Your task to perform on an android device: change your default location settings in chrome Image 0: 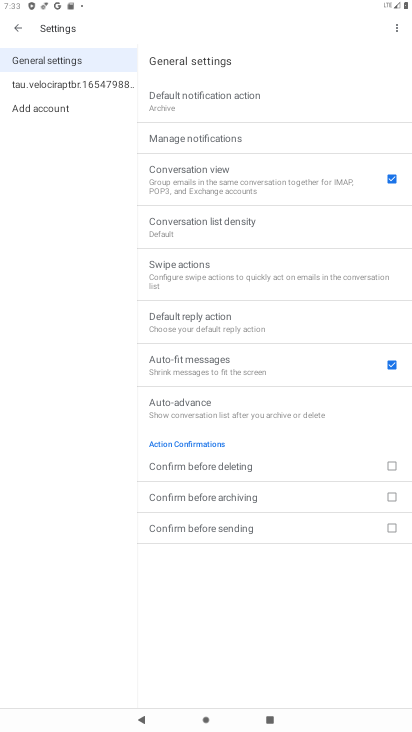
Step 0: press home button
Your task to perform on an android device: change your default location settings in chrome Image 1: 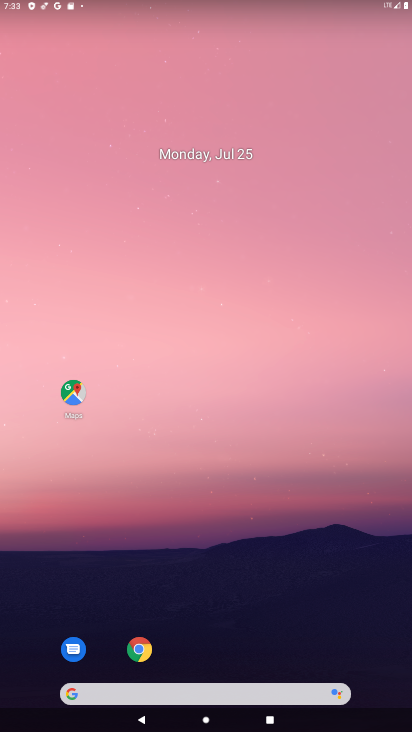
Step 1: drag from (217, 671) to (164, 236)
Your task to perform on an android device: change your default location settings in chrome Image 2: 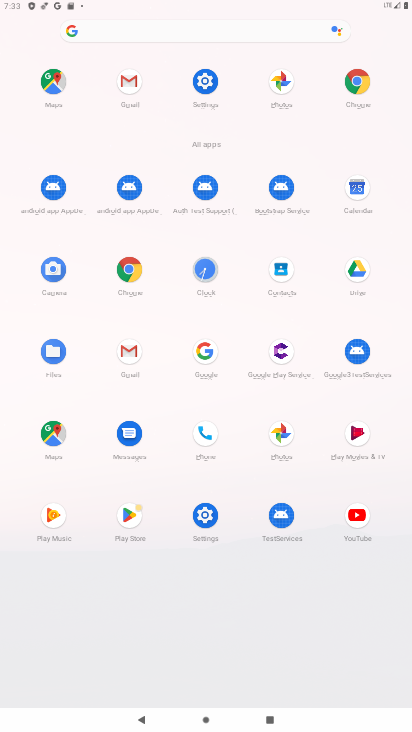
Step 2: click (131, 255)
Your task to perform on an android device: change your default location settings in chrome Image 3: 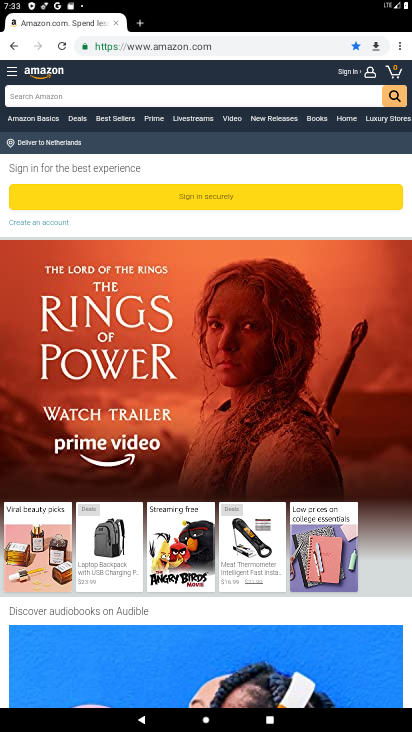
Step 3: click (401, 42)
Your task to perform on an android device: change your default location settings in chrome Image 4: 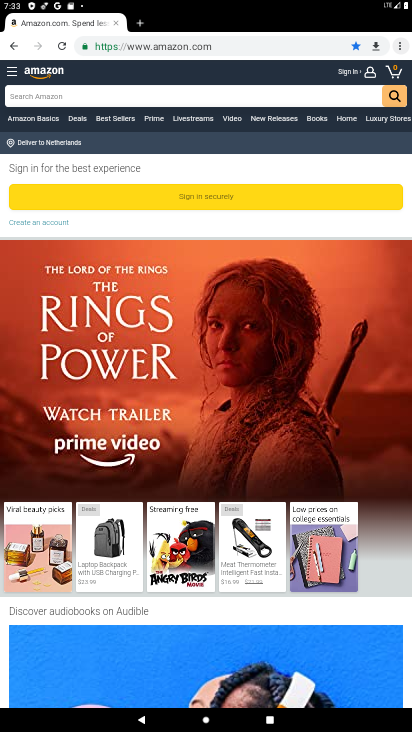
Step 4: click (401, 42)
Your task to perform on an android device: change your default location settings in chrome Image 5: 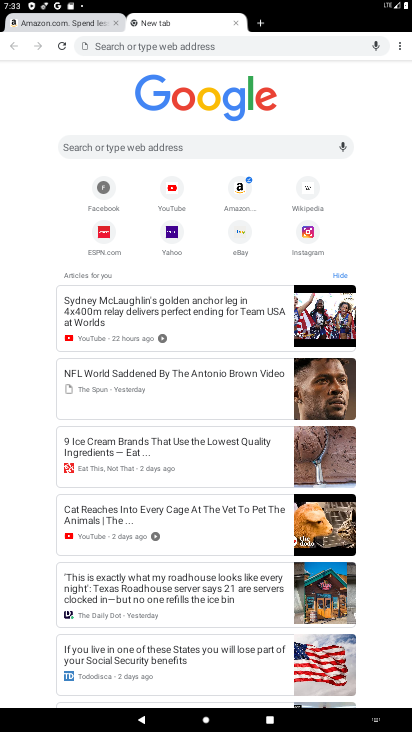
Step 5: click (401, 42)
Your task to perform on an android device: change your default location settings in chrome Image 6: 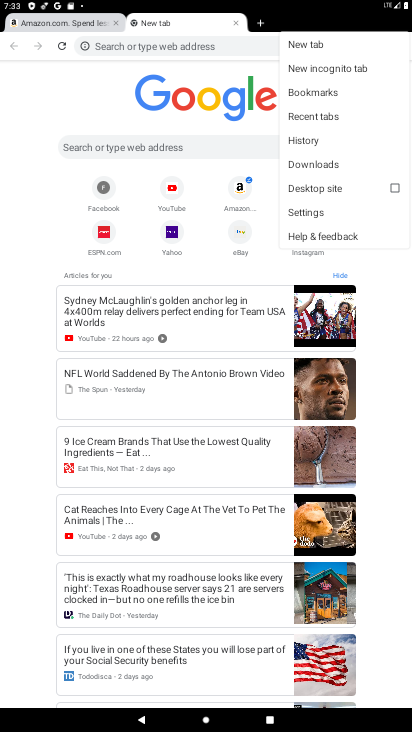
Step 6: click (303, 209)
Your task to perform on an android device: change your default location settings in chrome Image 7: 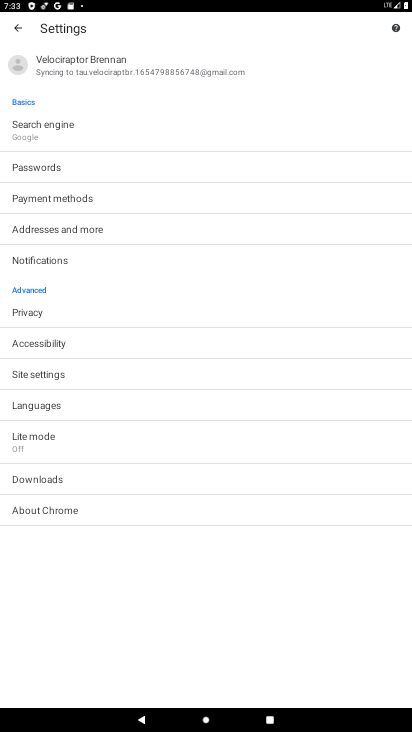
Step 7: click (83, 371)
Your task to perform on an android device: change your default location settings in chrome Image 8: 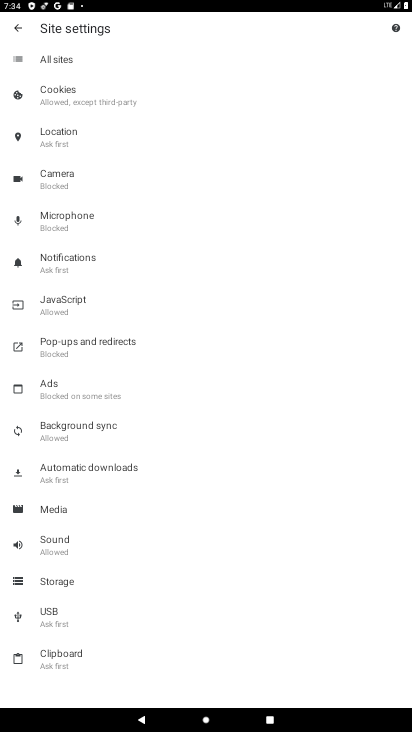
Step 8: click (58, 130)
Your task to perform on an android device: change your default location settings in chrome Image 9: 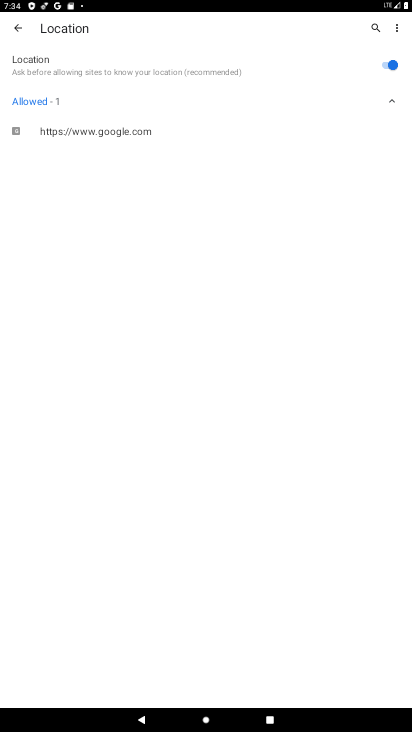
Step 9: click (393, 68)
Your task to perform on an android device: change your default location settings in chrome Image 10: 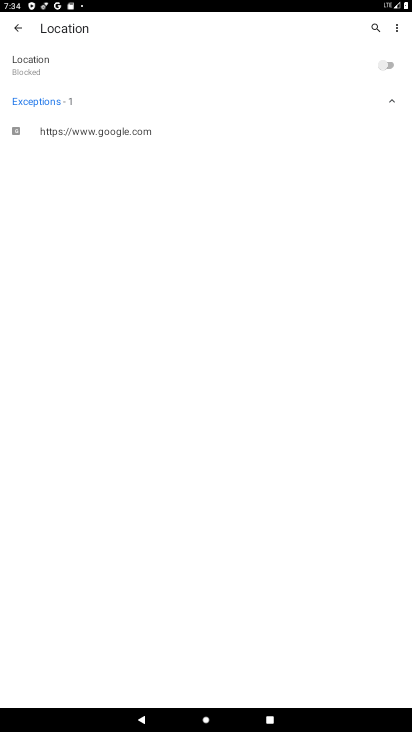
Step 10: task complete